Your task to perform on an android device: Show me popular videos on Youtube Image 0: 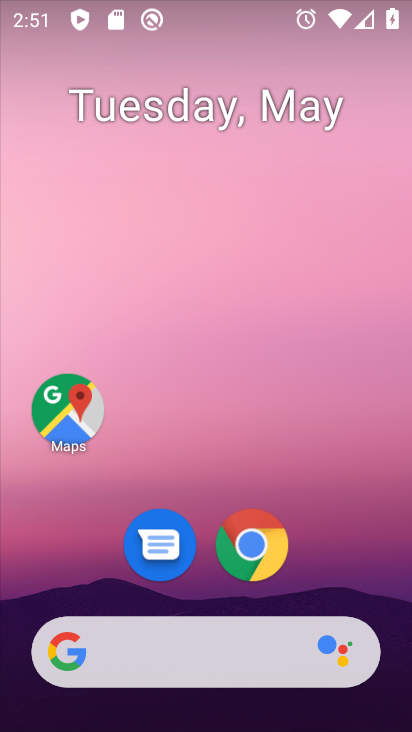
Step 0: press home button
Your task to perform on an android device: Show me popular videos on Youtube Image 1: 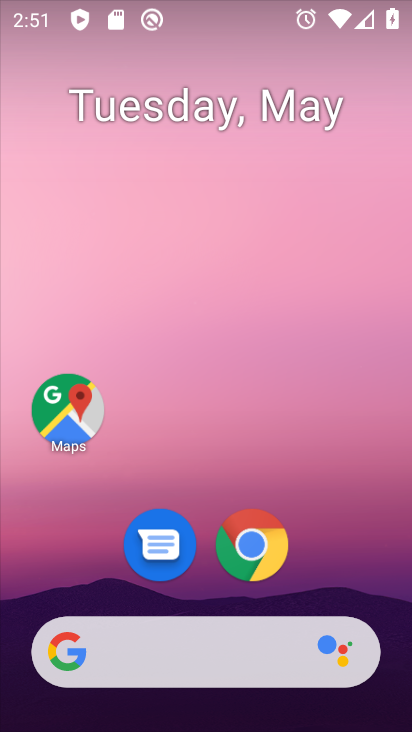
Step 1: drag from (179, 630) to (174, 43)
Your task to perform on an android device: Show me popular videos on Youtube Image 2: 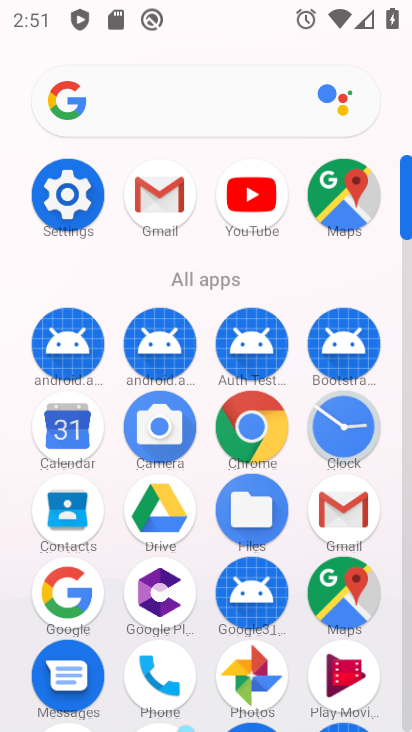
Step 2: click (264, 206)
Your task to perform on an android device: Show me popular videos on Youtube Image 3: 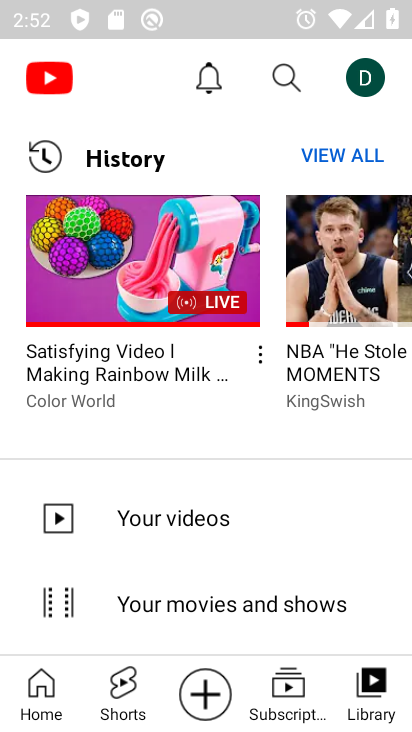
Step 3: click (34, 699)
Your task to perform on an android device: Show me popular videos on Youtube Image 4: 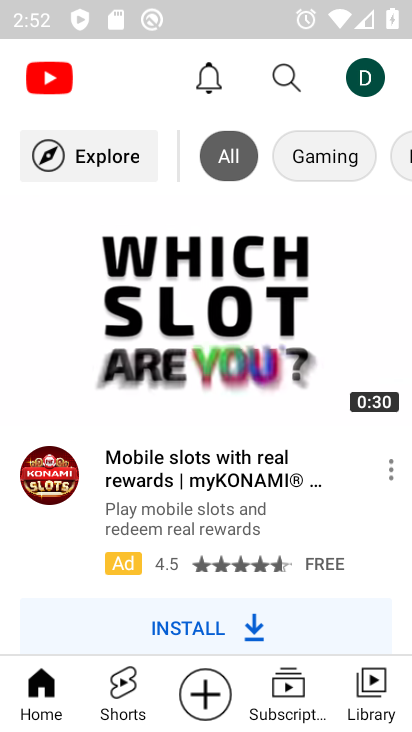
Step 4: click (57, 158)
Your task to perform on an android device: Show me popular videos on Youtube Image 5: 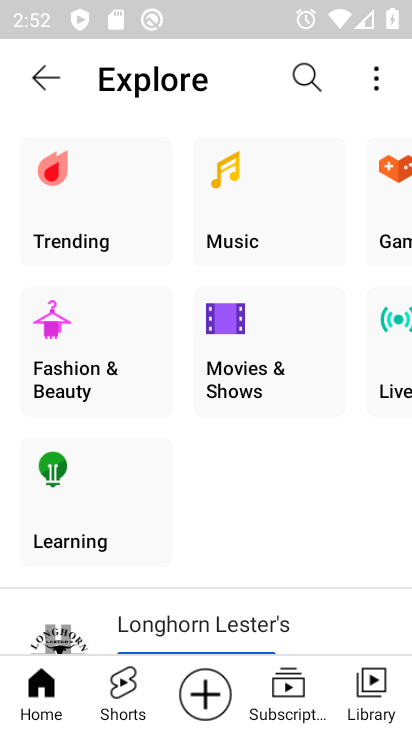
Step 5: click (49, 217)
Your task to perform on an android device: Show me popular videos on Youtube Image 6: 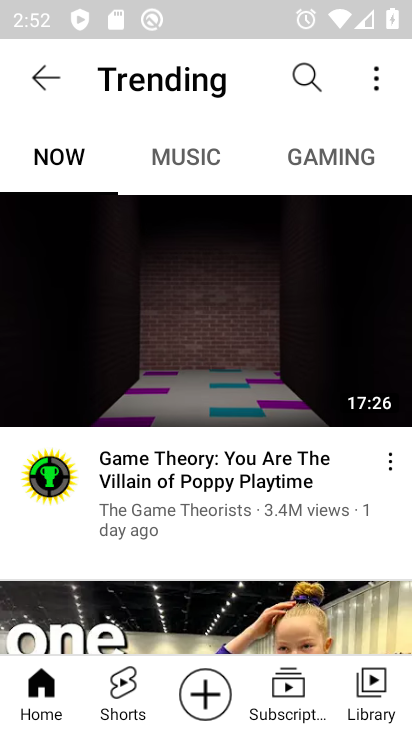
Step 6: task complete